Your task to perform on an android device: Open display settings Image 0: 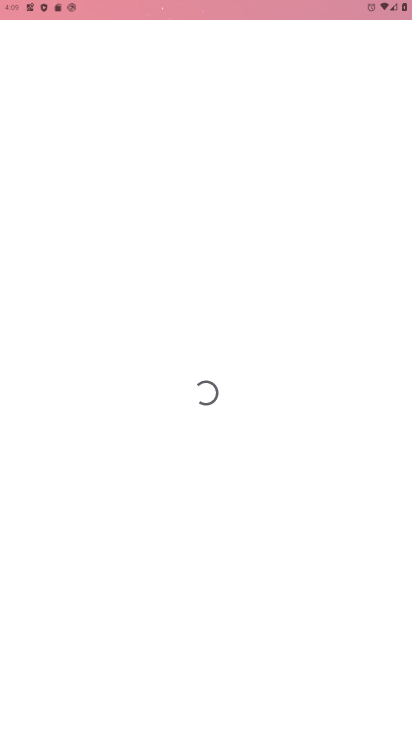
Step 0: click (135, 653)
Your task to perform on an android device: Open display settings Image 1: 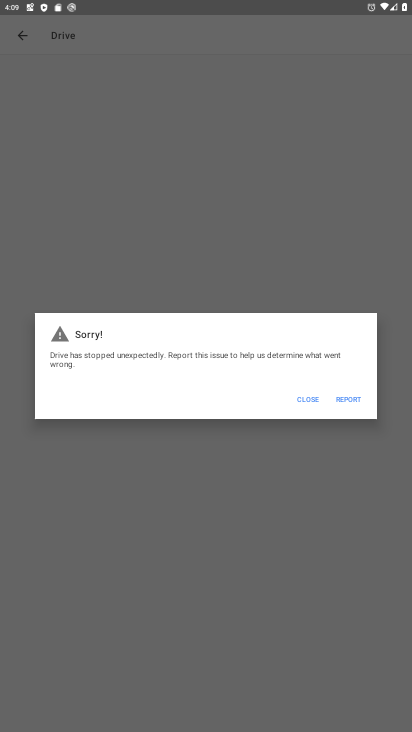
Step 1: click (134, 664)
Your task to perform on an android device: Open display settings Image 2: 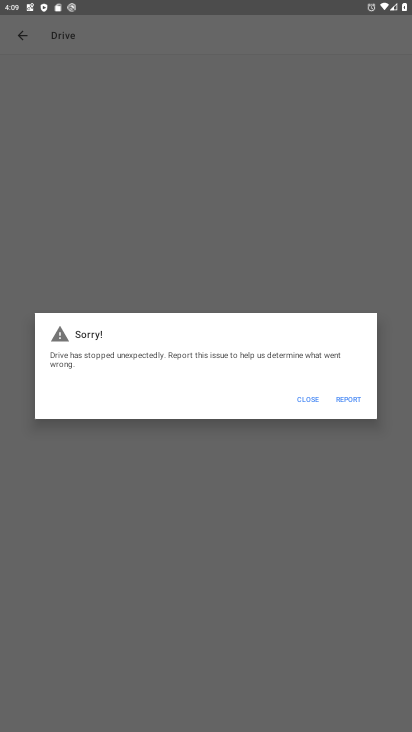
Step 2: press home button
Your task to perform on an android device: Open display settings Image 3: 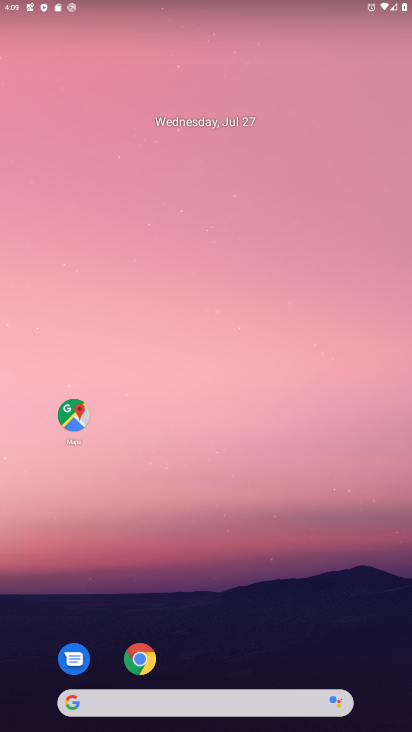
Step 3: drag from (217, 627) to (326, 8)
Your task to perform on an android device: Open display settings Image 4: 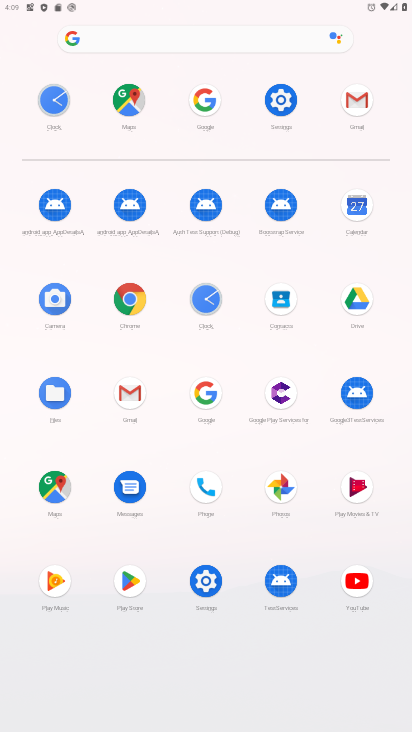
Step 4: click (286, 90)
Your task to perform on an android device: Open display settings Image 5: 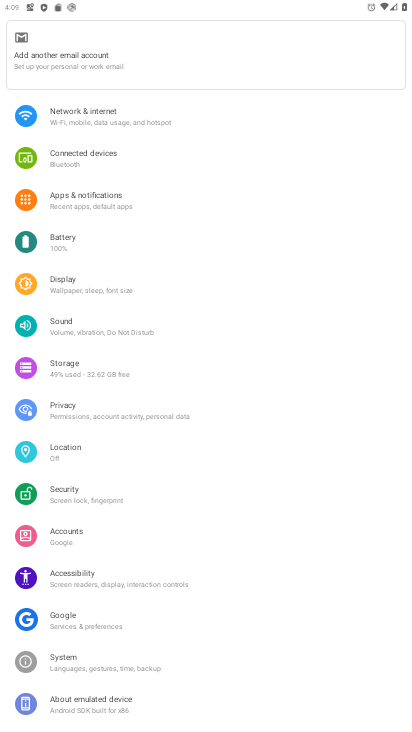
Step 5: click (69, 276)
Your task to perform on an android device: Open display settings Image 6: 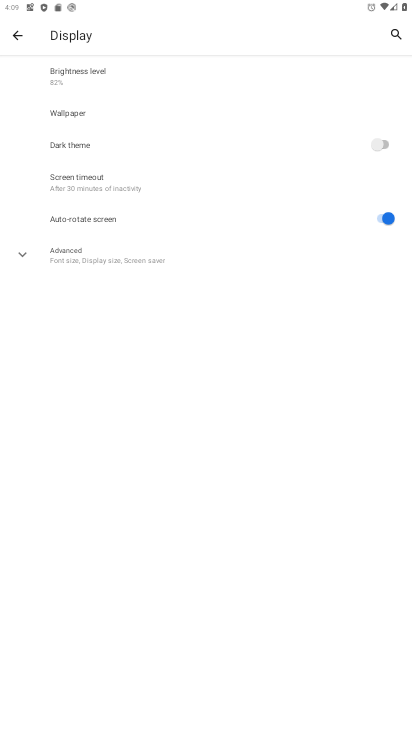
Step 6: task complete